Your task to perform on an android device: refresh tabs in the chrome app Image 0: 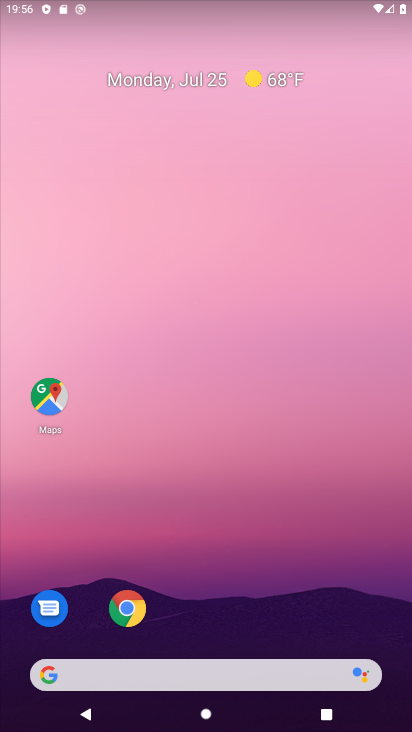
Step 0: click (133, 606)
Your task to perform on an android device: refresh tabs in the chrome app Image 1: 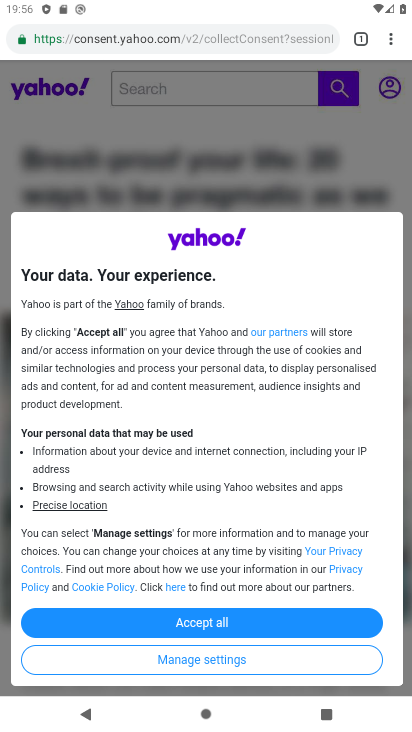
Step 1: click (392, 42)
Your task to perform on an android device: refresh tabs in the chrome app Image 2: 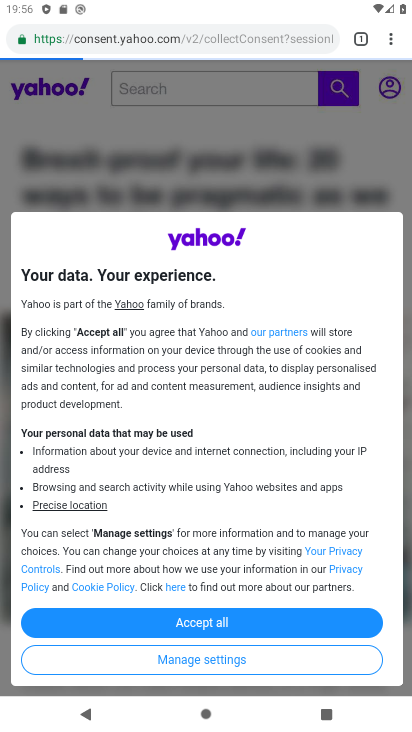
Step 2: click (392, 42)
Your task to perform on an android device: refresh tabs in the chrome app Image 3: 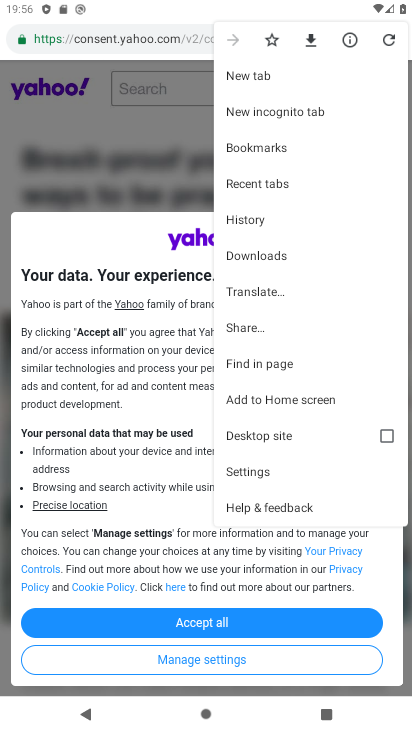
Step 3: click (392, 42)
Your task to perform on an android device: refresh tabs in the chrome app Image 4: 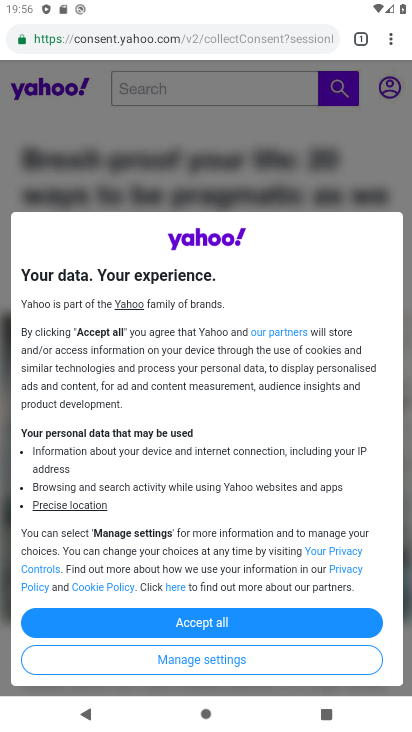
Step 4: task complete